Your task to perform on an android device: allow cookies in the chrome app Image 0: 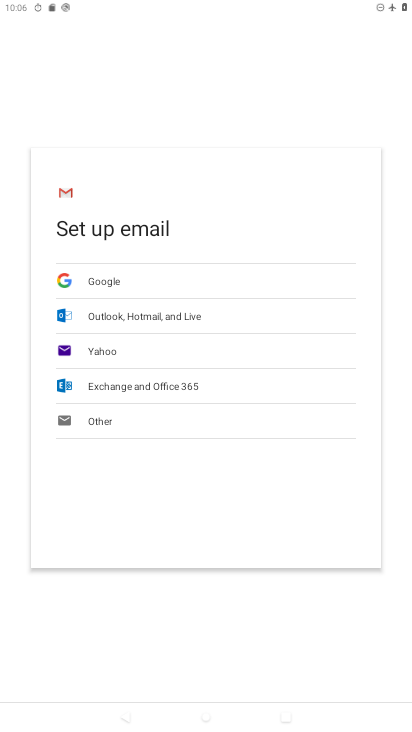
Step 0: press home button
Your task to perform on an android device: allow cookies in the chrome app Image 1: 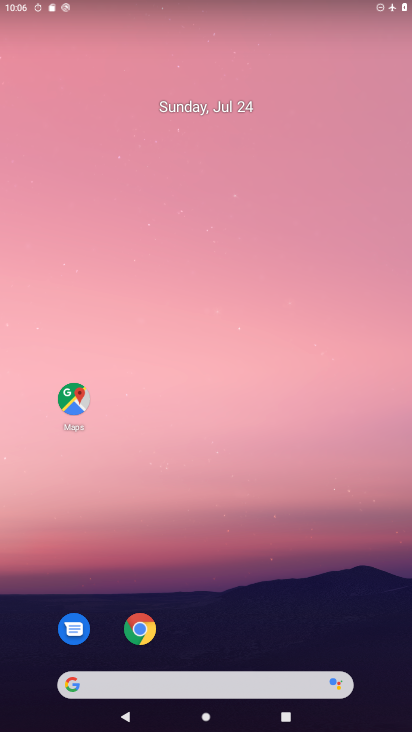
Step 1: drag from (294, 637) to (307, 196)
Your task to perform on an android device: allow cookies in the chrome app Image 2: 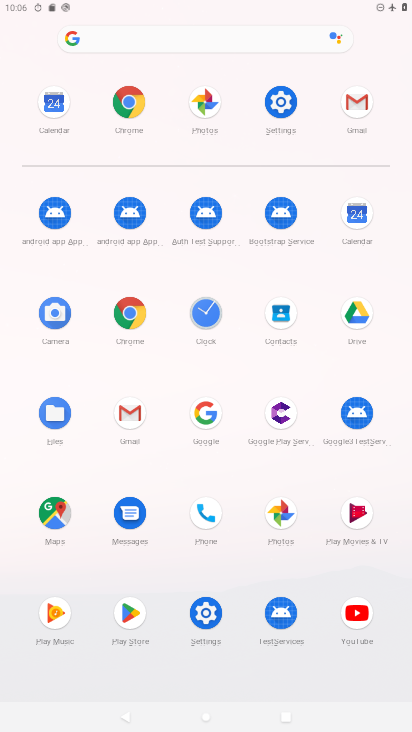
Step 2: click (138, 335)
Your task to perform on an android device: allow cookies in the chrome app Image 3: 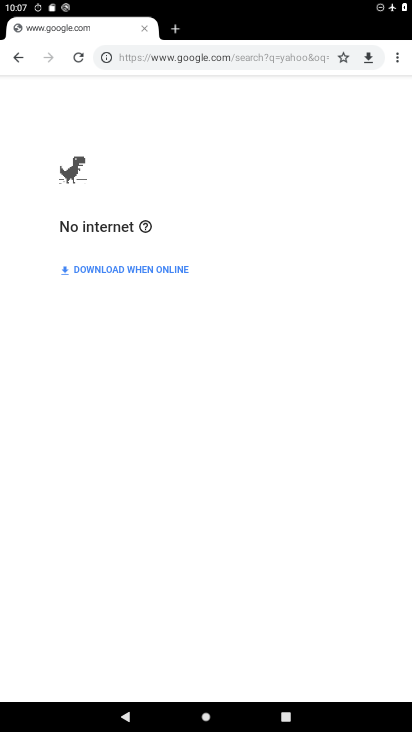
Step 3: click (399, 56)
Your task to perform on an android device: allow cookies in the chrome app Image 4: 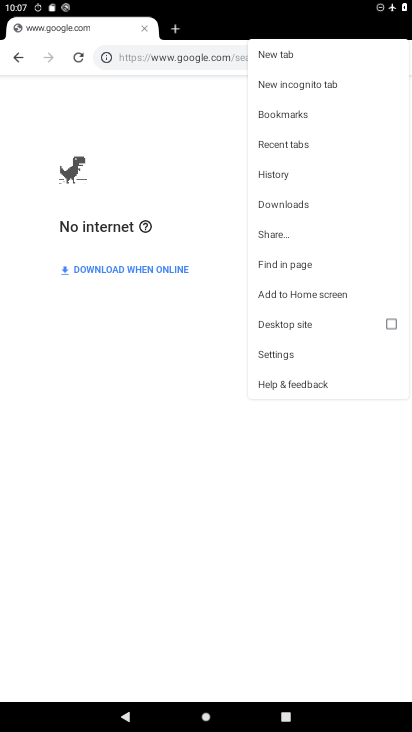
Step 4: click (284, 356)
Your task to perform on an android device: allow cookies in the chrome app Image 5: 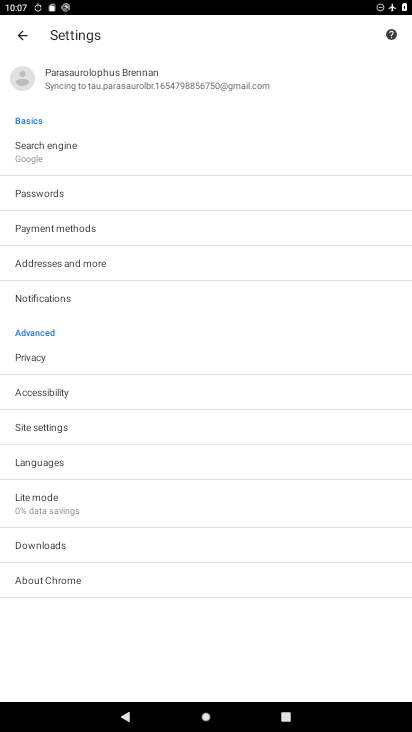
Step 5: click (77, 428)
Your task to perform on an android device: allow cookies in the chrome app Image 6: 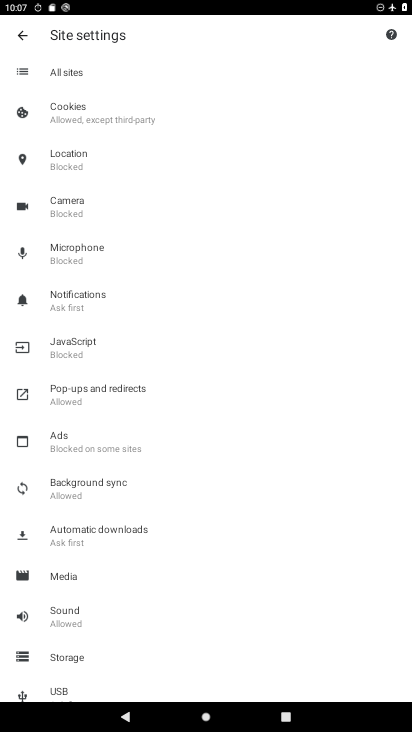
Step 6: click (118, 113)
Your task to perform on an android device: allow cookies in the chrome app Image 7: 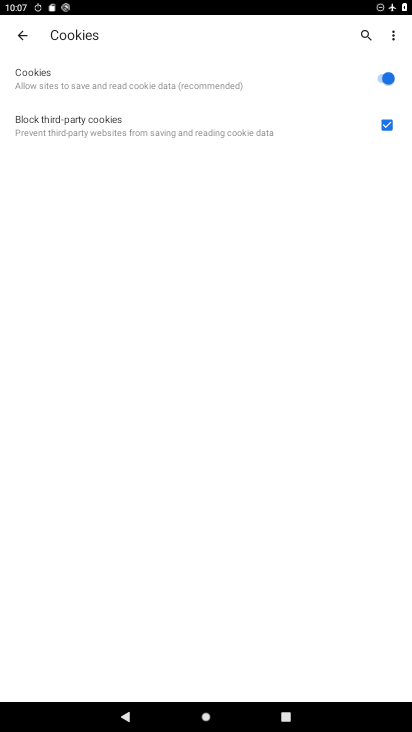
Step 7: task complete